Your task to perform on an android device: Go to accessibility settings Image 0: 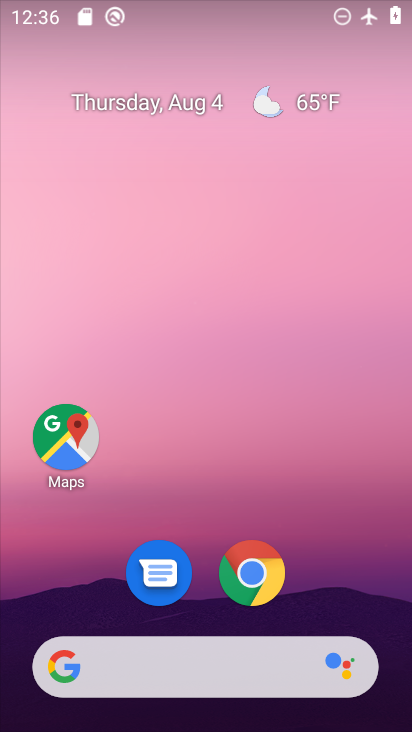
Step 0: drag from (356, 567) to (303, 72)
Your task to perform on an android device: Go to accessibility settings Image 1: 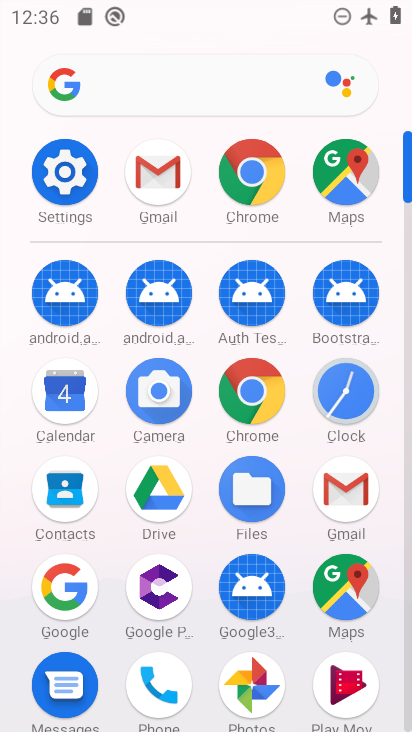
Step 1: click (65, 165)
Your task to perform on an android device: Go to accessibility settings Image 2: 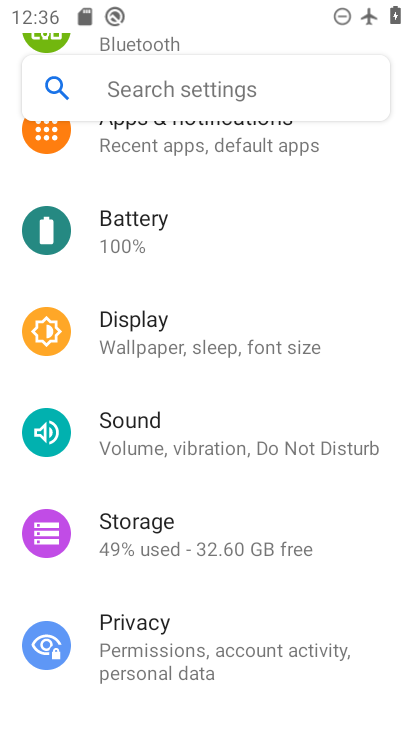
Step 2: drag from (269, 597) to (309, 234)
Your task to perform on an android device: Go to accessibility settings Image 3: 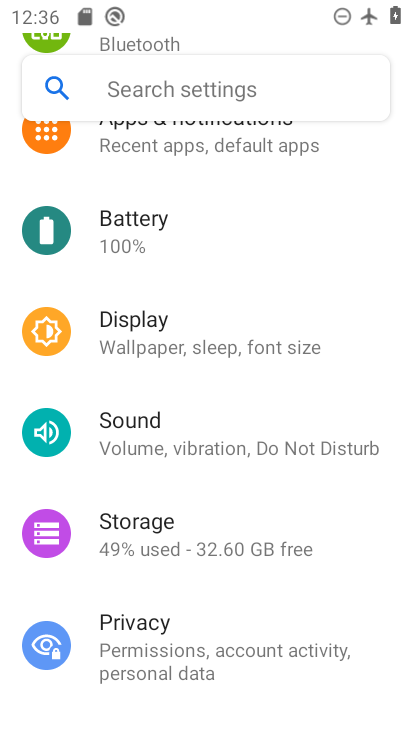
Step 3: drag from (287, 245) to (263, 500)
Your task to perform on an android device: Go to accessibility settings Image 4: 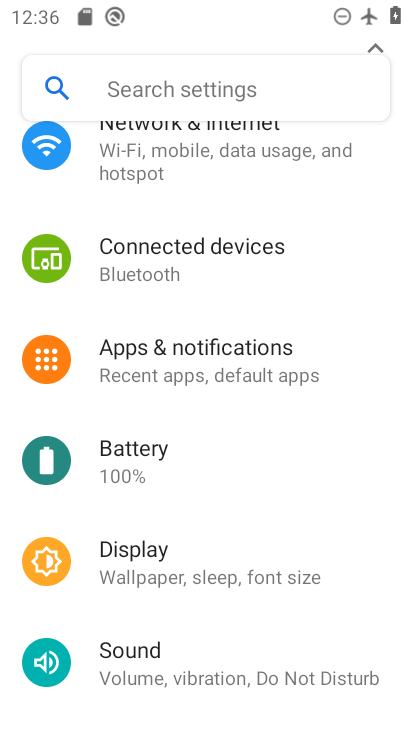
Step 4: drag from (237, 545) to (287, 284)
Your task to perform on an android device: Go to accessibility settings Image 5: 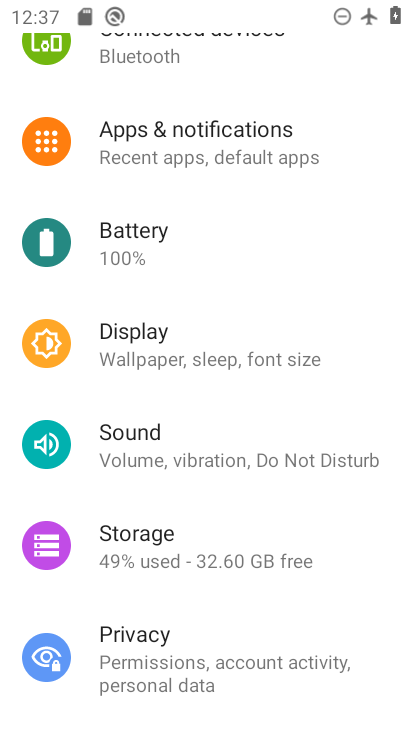
Step 5: drag from (267, 279) to (237, 625)
Your task to perform on an android device: Go to accessibility settings Image 6: 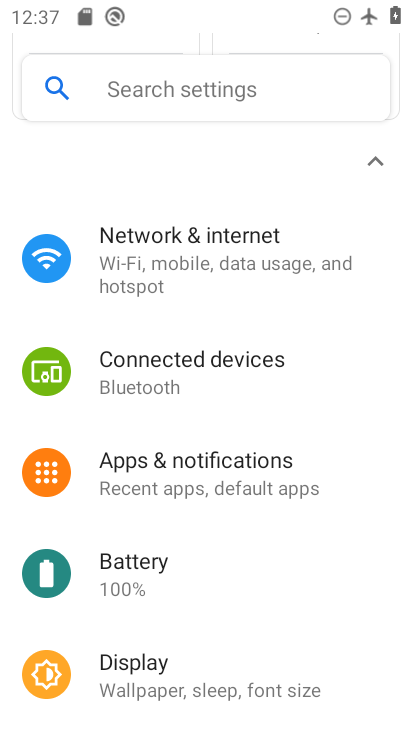
Step 6: drag from (229, 595) to (274, 146)
Your task to perform on an android device: Go to accessibility settings Image 7: 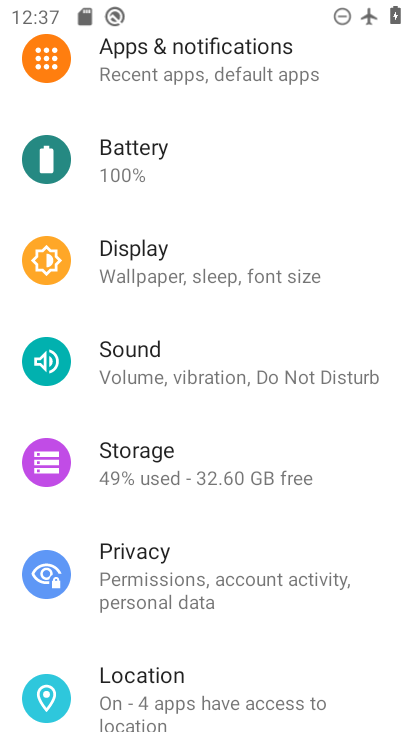
Step 7: drag from (266, 627) to (310, 192)
Your task to perform on an android device: Go to accessibility settings Image 8: 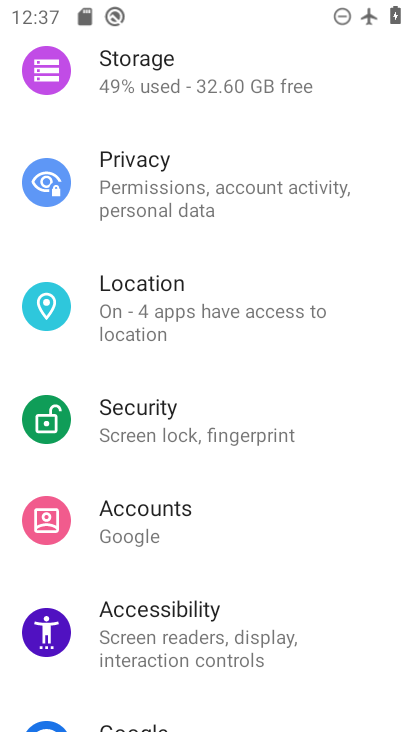
Step 8: click (168, 617)
Your task to perform on an android device: Go to accessibility settings Image 9: 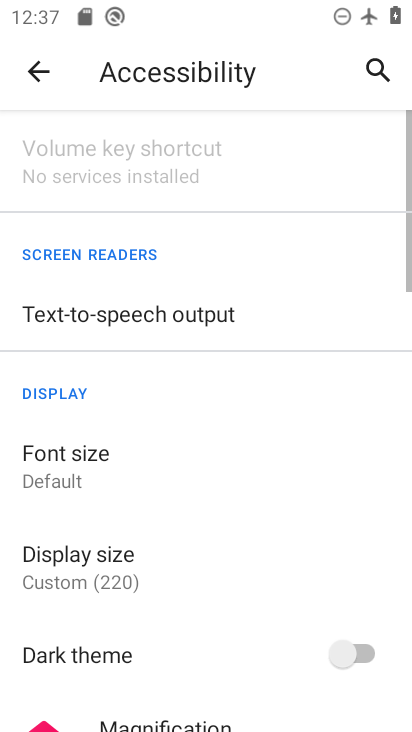
Step 9: task complete